Your task to perform on an android device: Open internet settings Image 0: 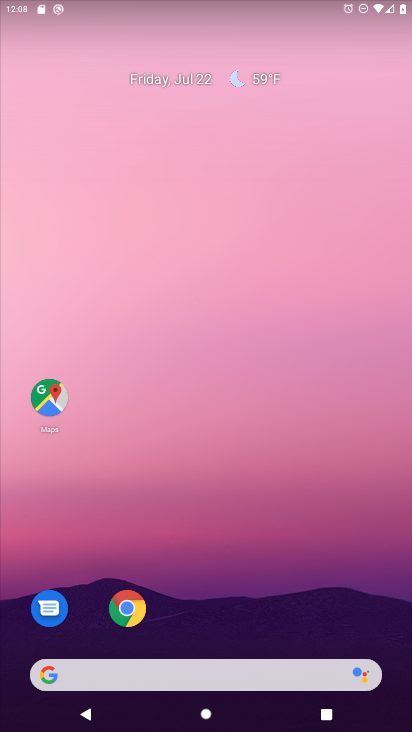
Step 0: drag from (380, 610) to (202, 0)
Your task to perform on an android device: Open internet settings Image 1: 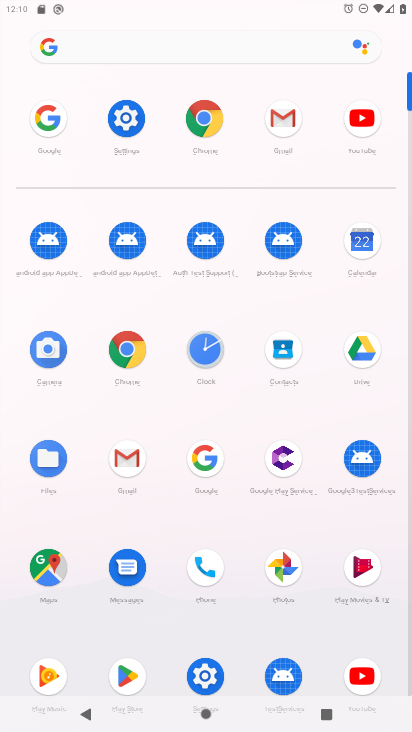
Step 1: click (200, 667)
Your task to perform on an android device: Open internet settings Image 2: 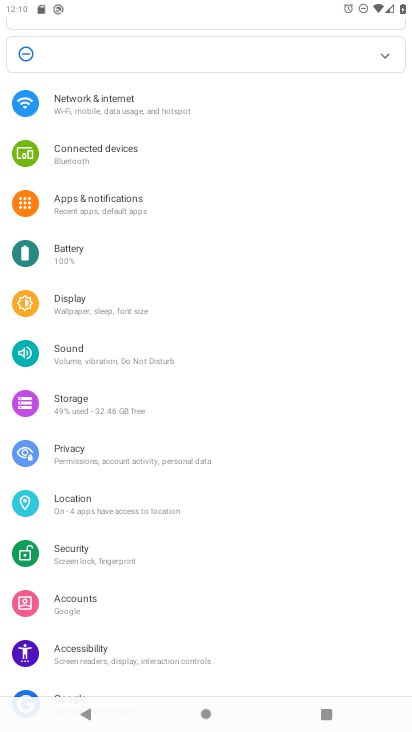
Step 2: click (143, 122)
Your task to perform on an android device: Open internet settings Image 3: 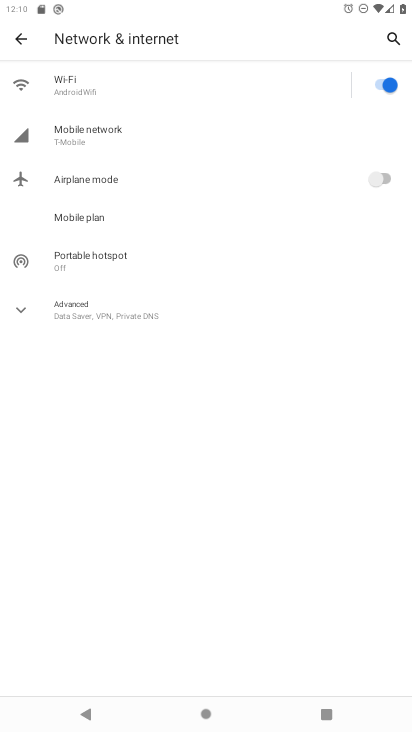
Step 3: task complete